Your task to perform on an android device: Open network settings Image 0: 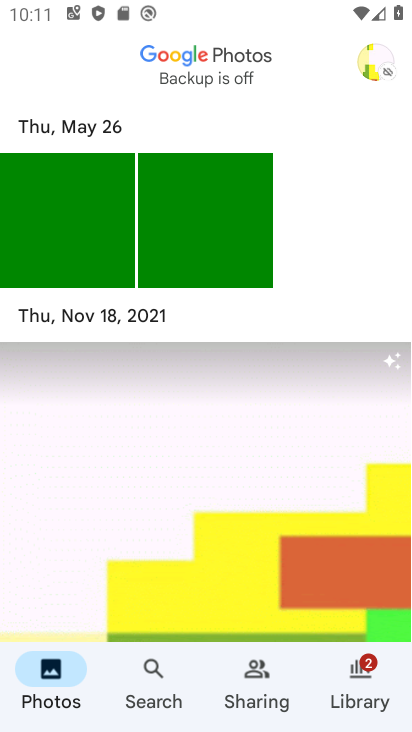
Step 0: press home button
Your task to perform on an android device: Open network settings Image 1: 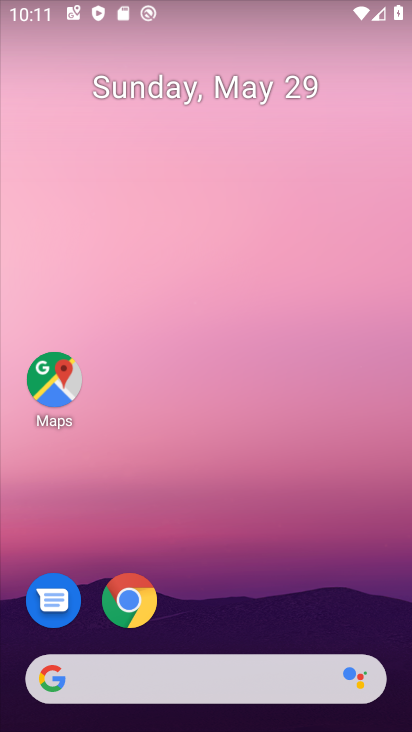
Step 1: drag from (180, 727) to (181, 98)
Your task to perform on an android device: Open network settings Image 2: 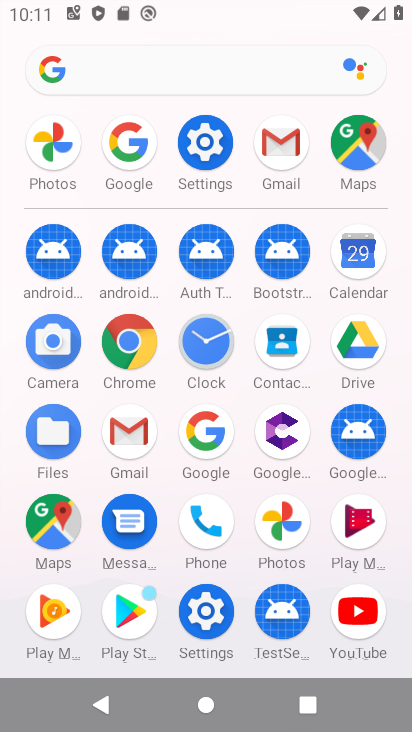
Step 2: click (203, 144)
Your task to perform on an android device: Open network settings Image 3: 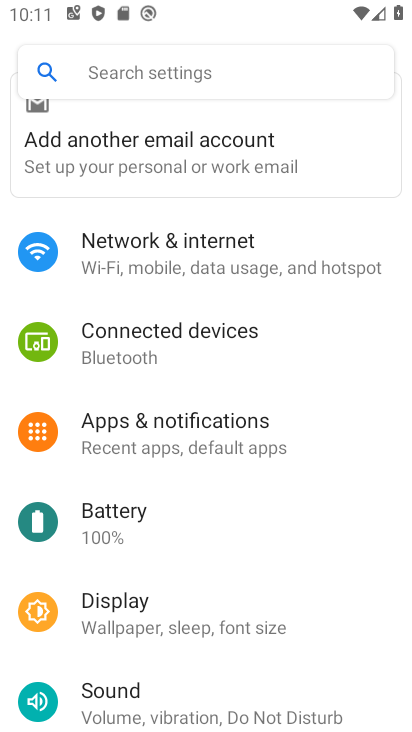
Step 3: click (143, 256)
Your task to perform on an android device: Open network settings Image 4: 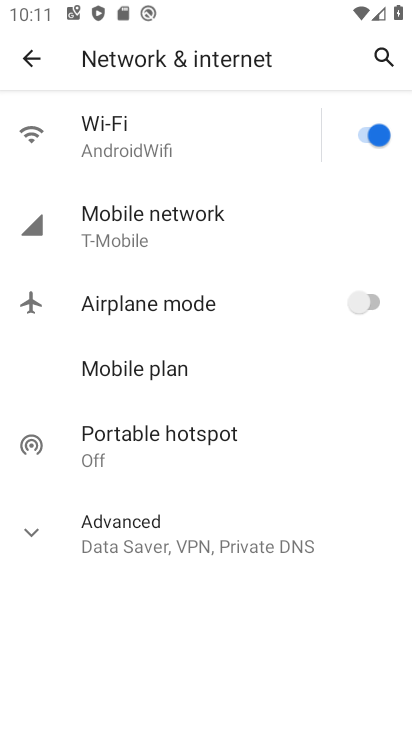
Step 4: task complete